Your task to perform on an android device: Open Chrome and go to settings Image 0: 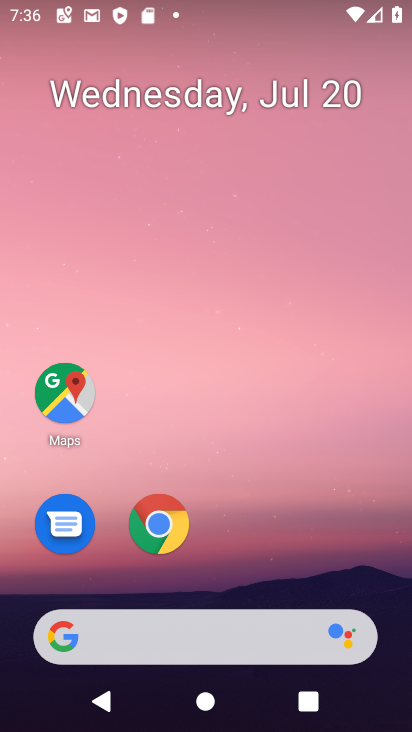
Step 0: click (148, 524)
Your task to perform on an android device: Open Chrome and go to settings Image 1: 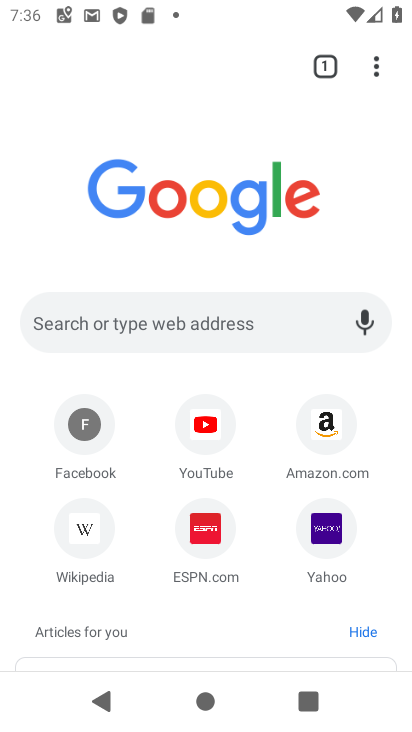
Step 1: task complete